Your task to perform on an android device: check android version Image 0: 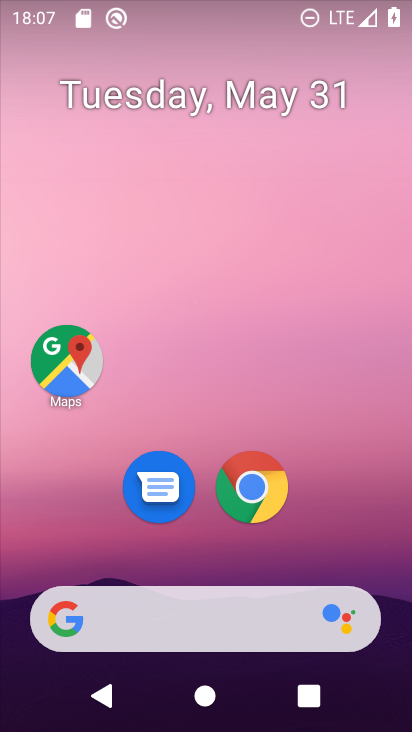
Step 0: drag from (355, 486) to (240, 32)
Your task to perform on an android device: check android version Image 1: 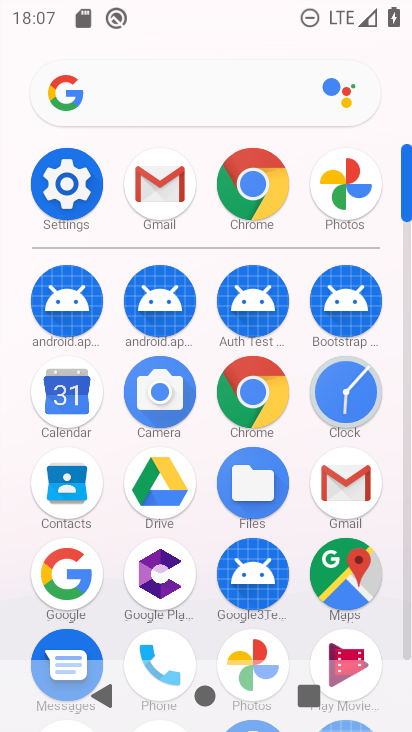
Step 1: click (64, 190)
Your task to perform on an android device: check android version Image 2: 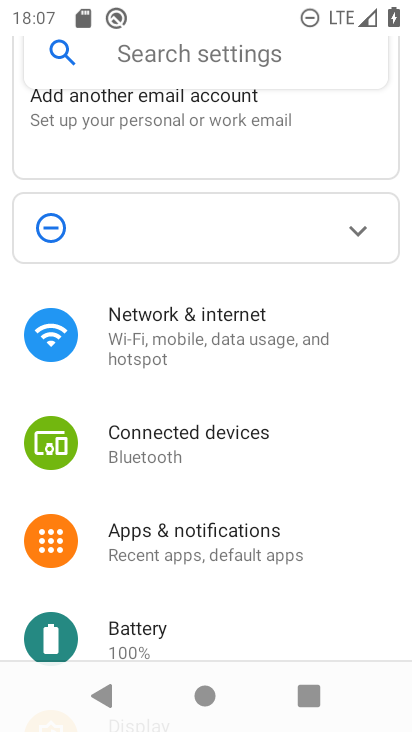
Step 2: drag from (222, 599) to (173, 311)
Your task to perform on an android device: check android version Image 3: 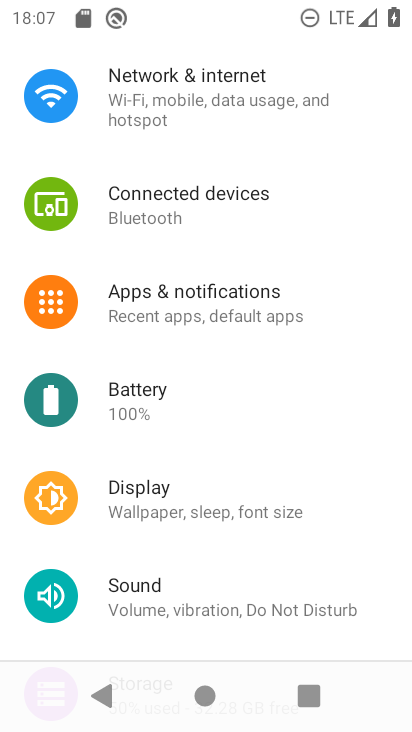
Step 3: drag from (216, 566) to (194, 246)
Your task to perform on an android device: check android version Image 4: 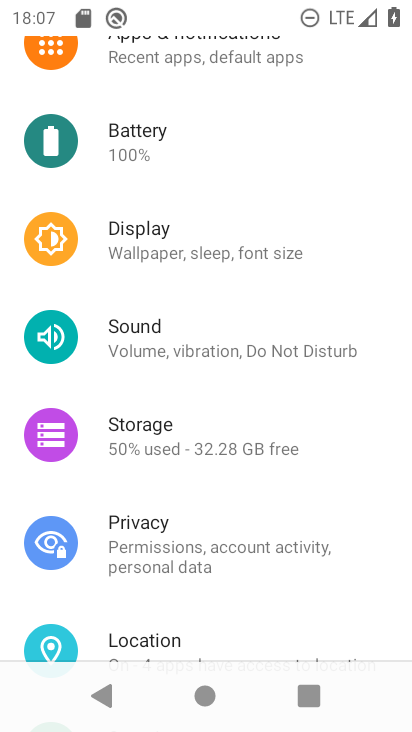
Step 4: drag from (212, 485) to (183, 187)
Your task to perform on an android device: check android version Image 5: 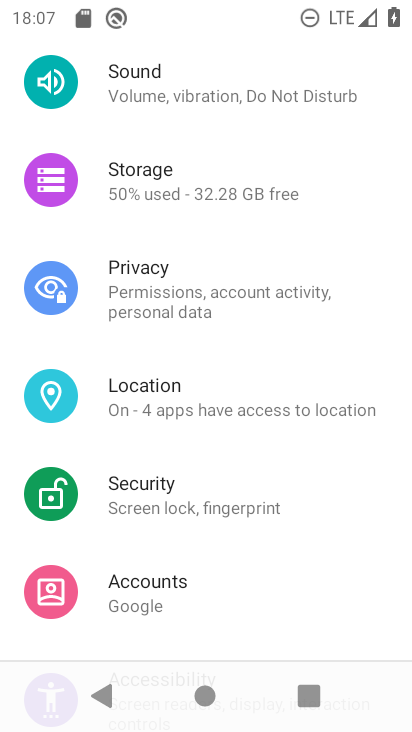
Step 5: drag from (195, 564) to (171, 263)
Your task to perform on an android device: check android version Image 6: 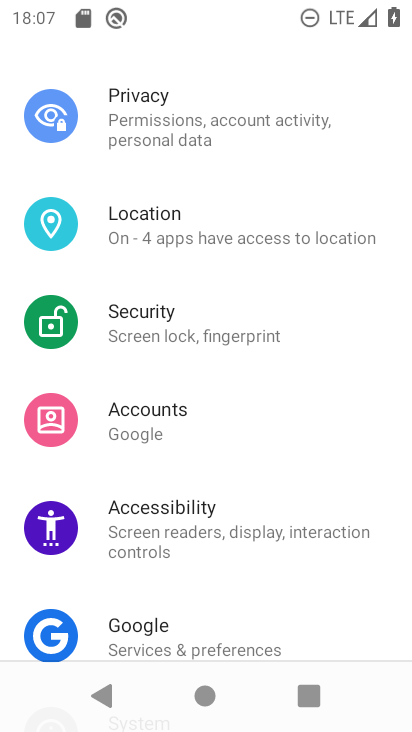
Step 6: drag from (214, 571) to (197, 207)
Your task to perform on an android device: check android version Image 7: 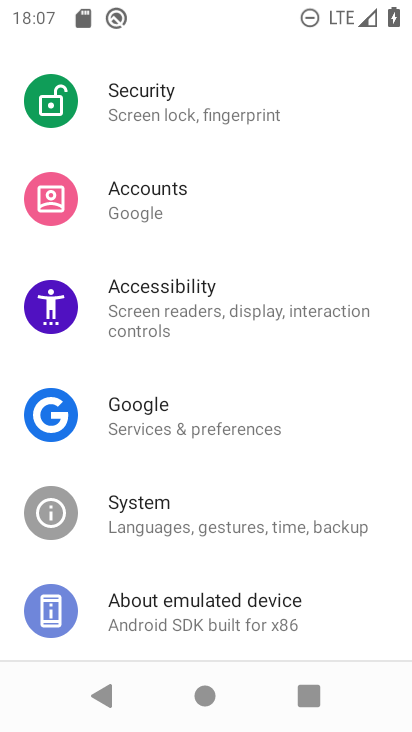
Step 7: click (182, 604)
Your task to perform on an android device: check android version Image 8: 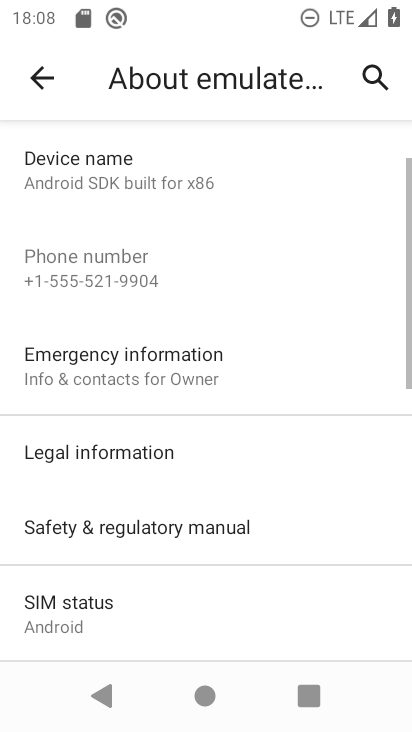
Step 8: task complete